Your task to perform on an android device: Open Google Chrome and open the bookmarks view Image 0: 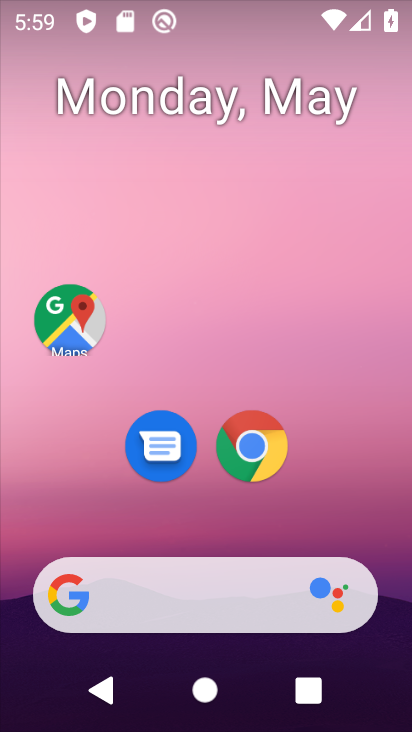
Step 0: press home button
Your task to perform on an android device: Open Google Chrome and open the bookmarks view Image 1: 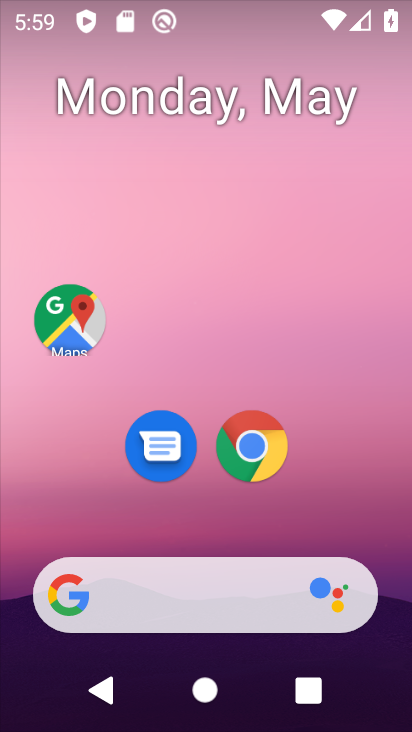
Step 1: click (258, 452)
Your task to perform on an android device: Open Google Chrome and open the bookmarks view Image 2: 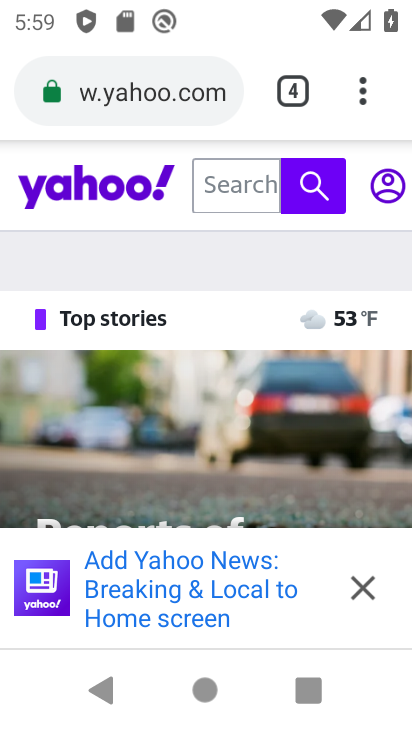
Step 2: click (359, 86)
Your task to perform on an android device: Open Google Chrome and open the bookmarks view Image 3: 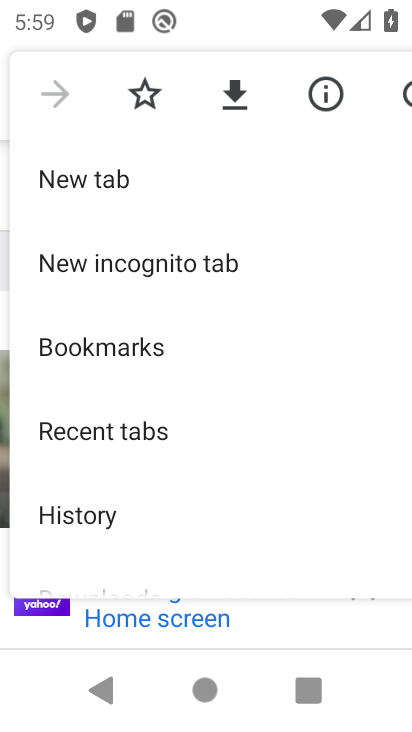
Step 3: click (114, 341)
Your task to perform on an android device: Open Google Chrome and open the bookmarks view Image 4: 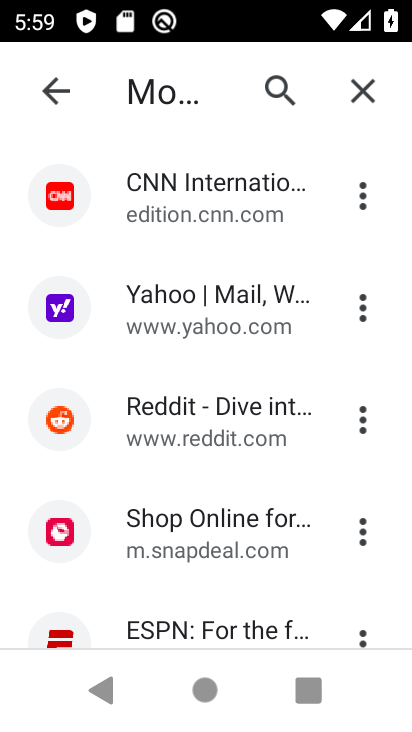
Step 4: click (359, 193)
Your task to perform on an android device: Open Google Chrome and open the bookmarks view Image 5: 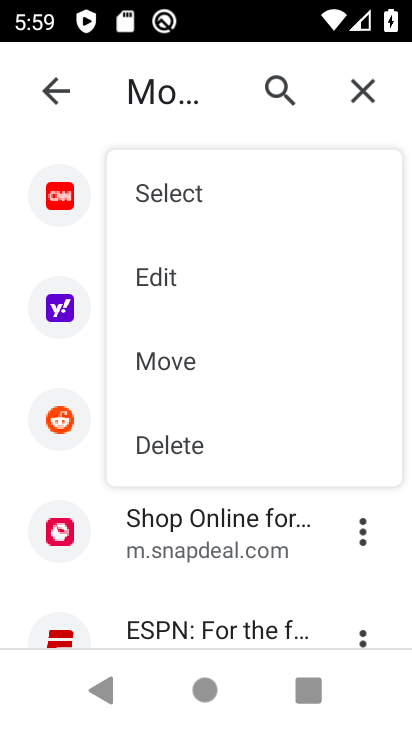
Step 5: click (158, 279)
Your task to perform on an android device: Open Google Chrome and open the bookmarks view Image 6: 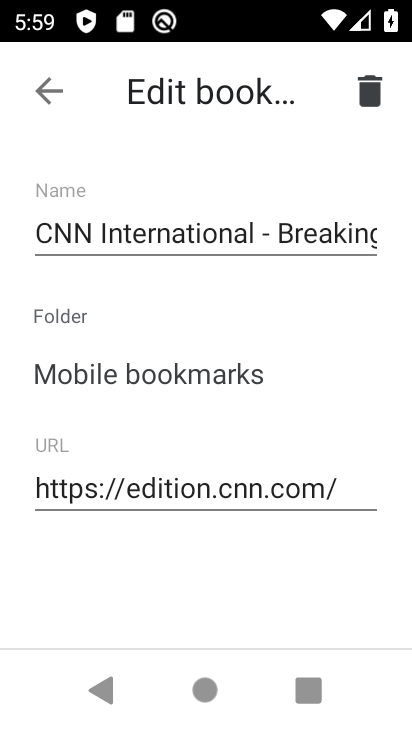
Step 6: task complete